Your task to perform on an android device: Clear the cart on costco.com. Search for lg ultragear on costco.com, select the first entry, add it to the cart, then select checkout. Image 0: 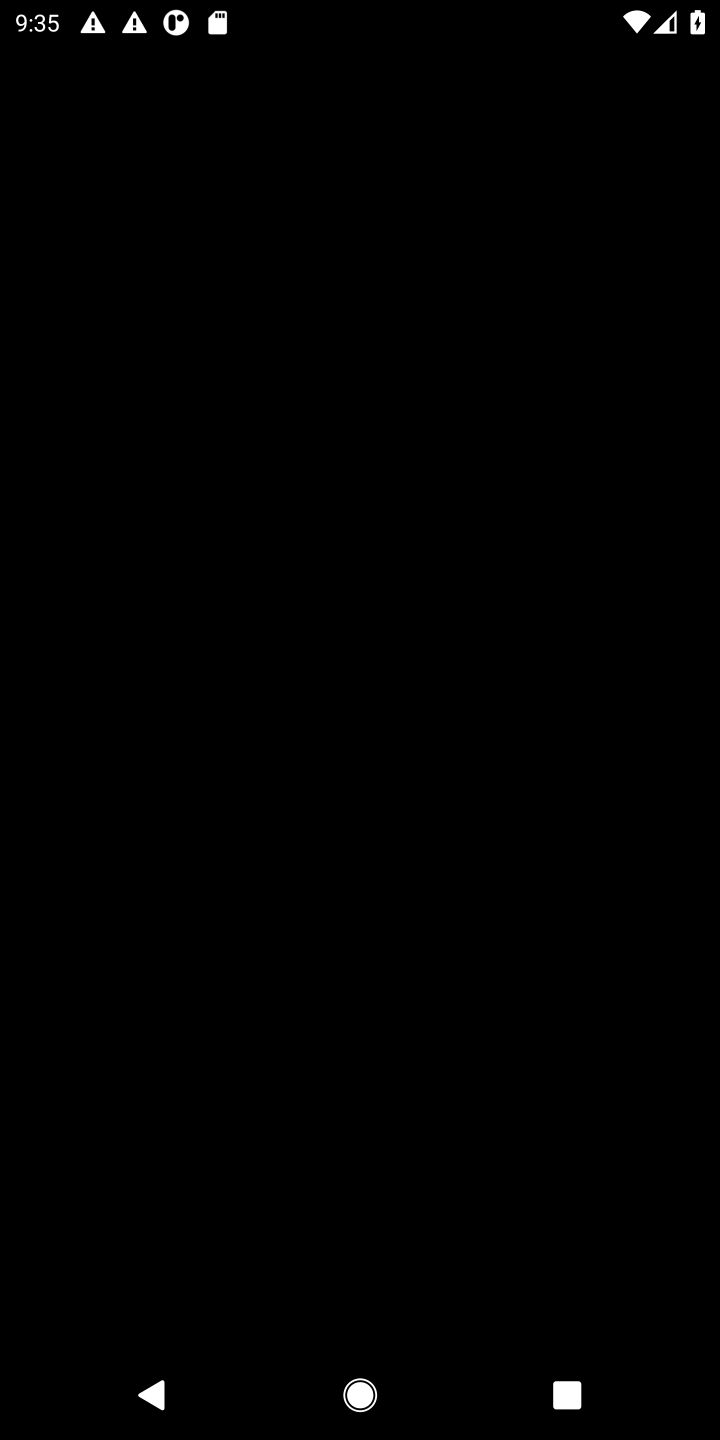
Step 0: press home button
Your task to perform on an android device: Clear the cart on costco.com. Search for lg ultragear on costco.com, select the first entry, add it to the cart, then select checkout. Image 1: 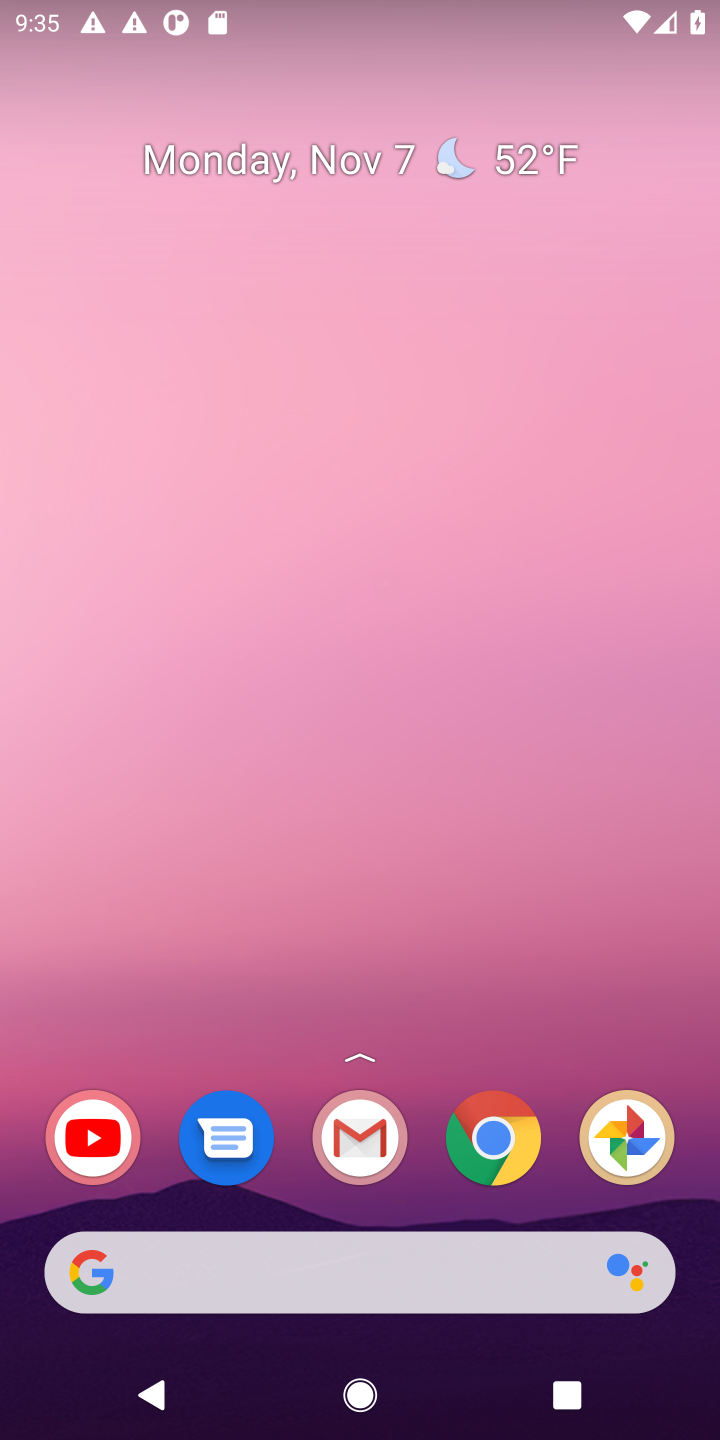
Step 1: click (512, 1120)
Your task to perform on an android device: Clear the cart on costco.com. Search for lg ultragear on costco.com, select the first entry, add it to the cart, then select checkout. Image 2: 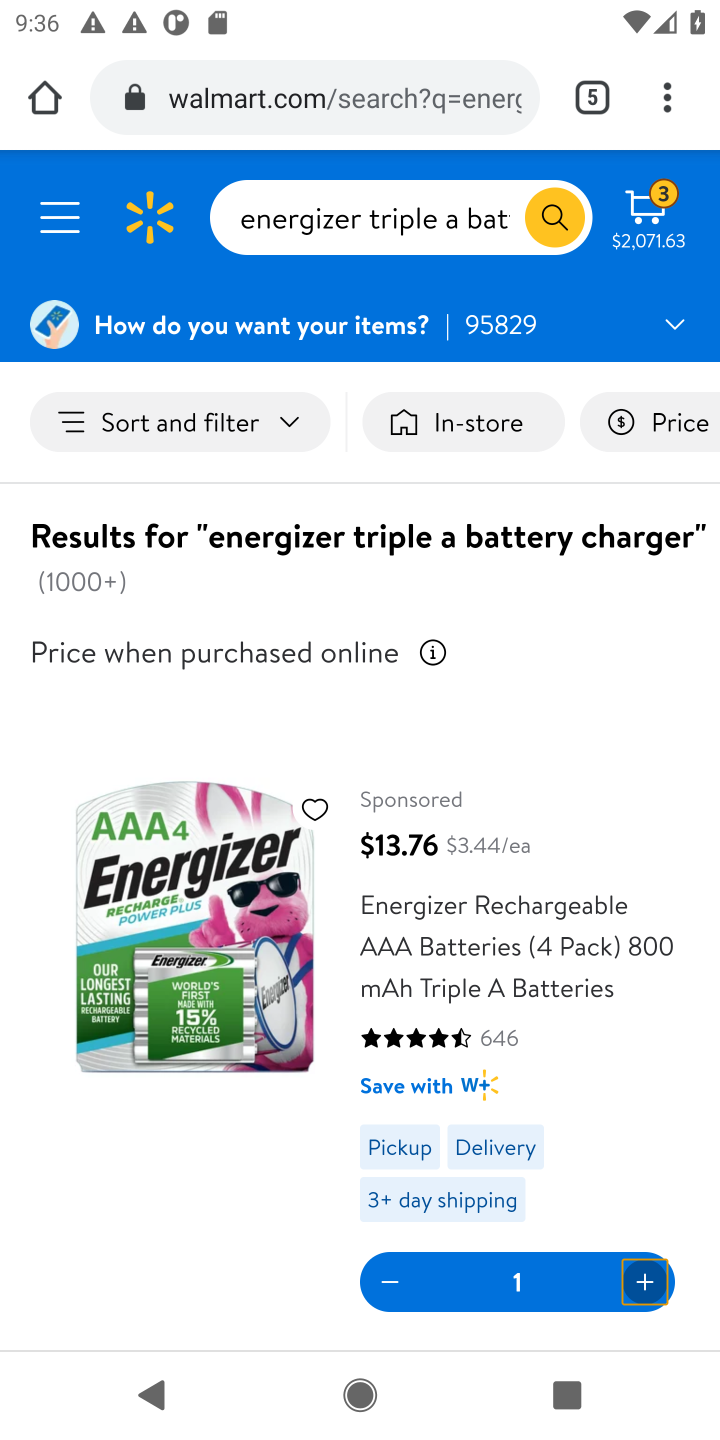
Step 2: click (595, 99)
Your task to perform on an android device: Clear the cart on costco.com. Search for lg ultragear on costco.com, select the first entry, add it to the cart, then select checkout. Image 3: 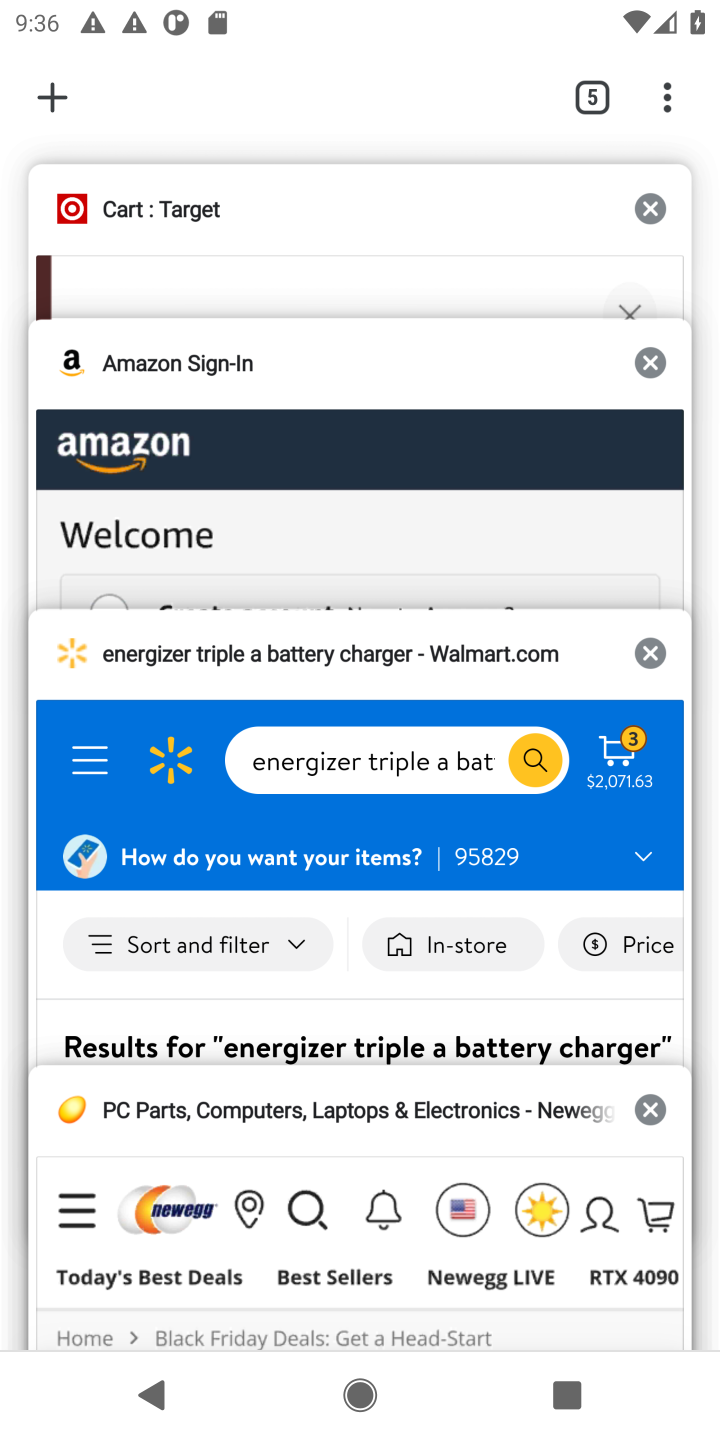
Step 3: click (52, 106)
Your task to perform on an android device: Clear the cart on costco.com. Search for lg ultragear on costco.com, select the first entry, add it to the cart, then select checkout. Image 4: 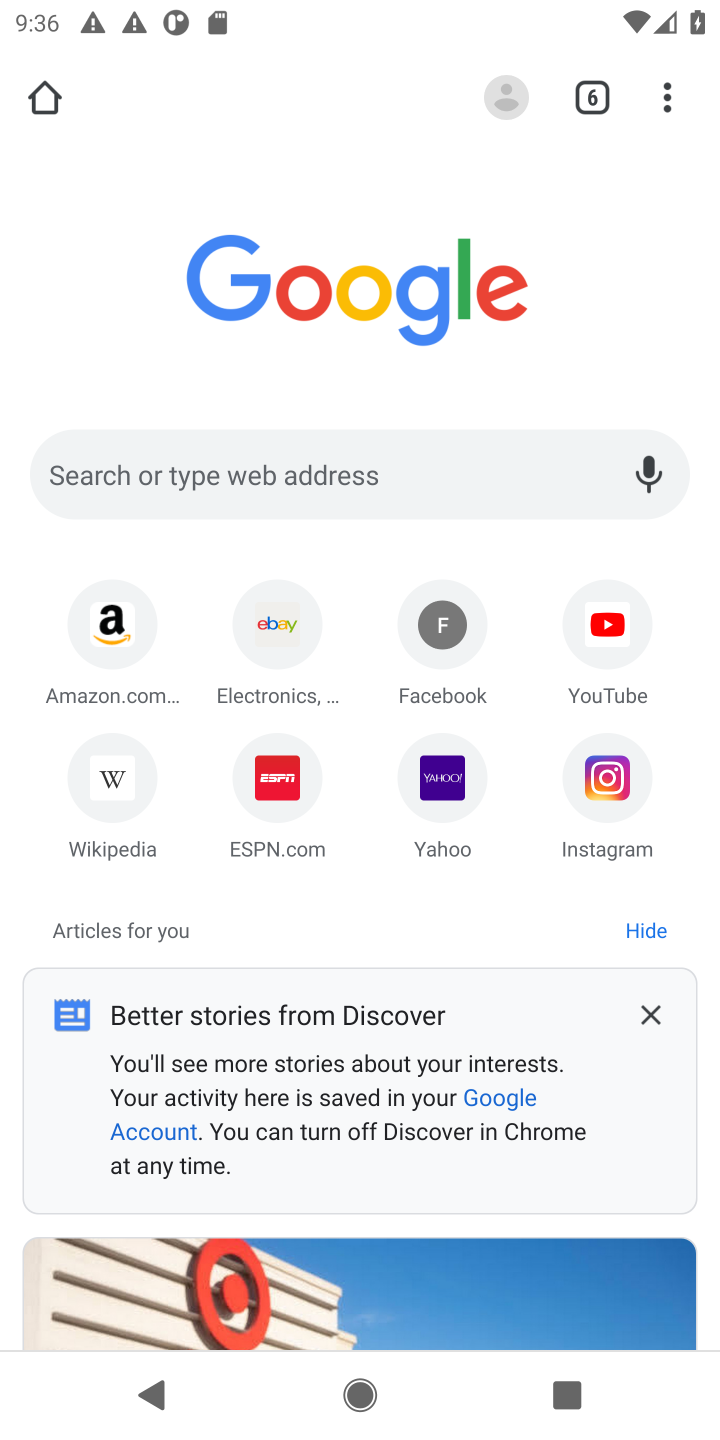
Step 4: click (210, 478)
Your task to perform on an android device: Clear the cart on costco.com. Search for lg ultragear on costco.com, select the first entry, add it to the cart, then select checkout. Image 5: 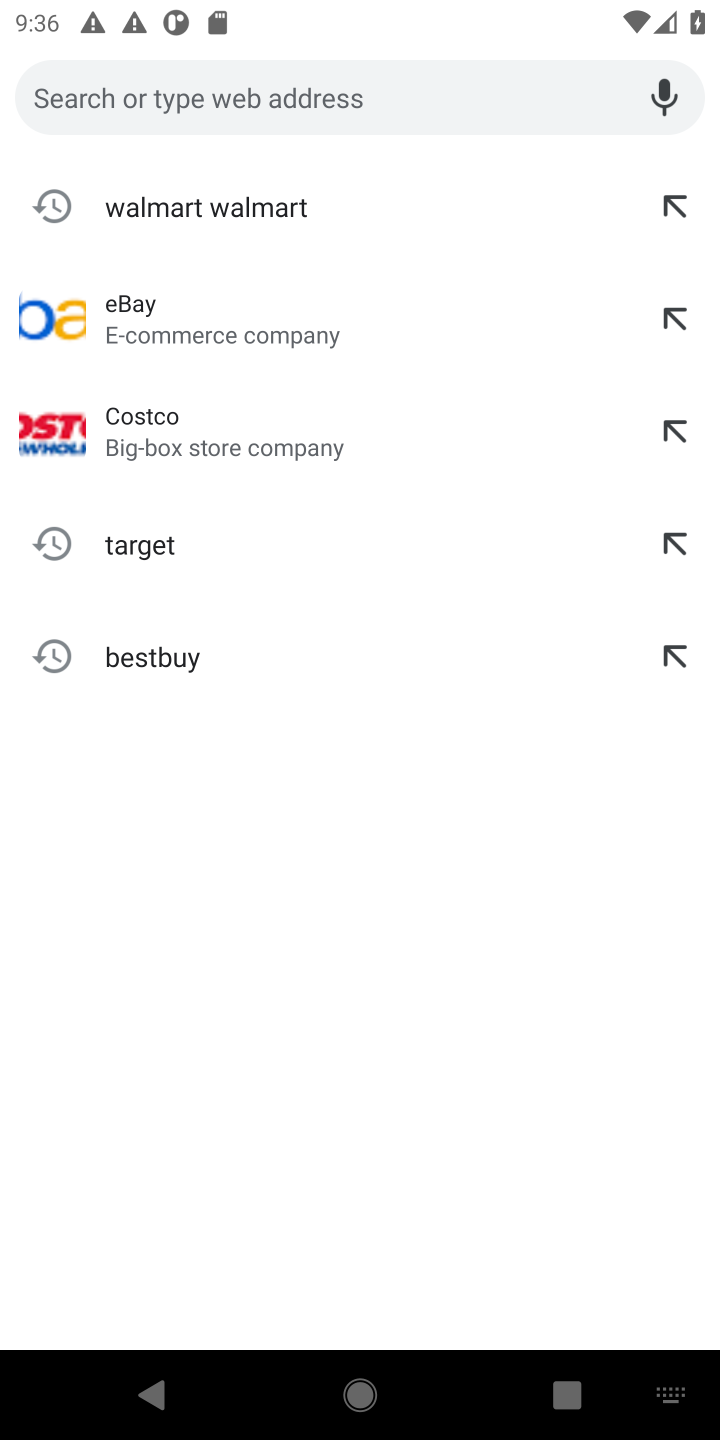
Step 5: click (204, 437)
Your task to perform on an android device: Clear the cart on costco.com. Search for lg ultragear on costco.com, select the first entry, add it to the cart, then select checkout. Image 6: 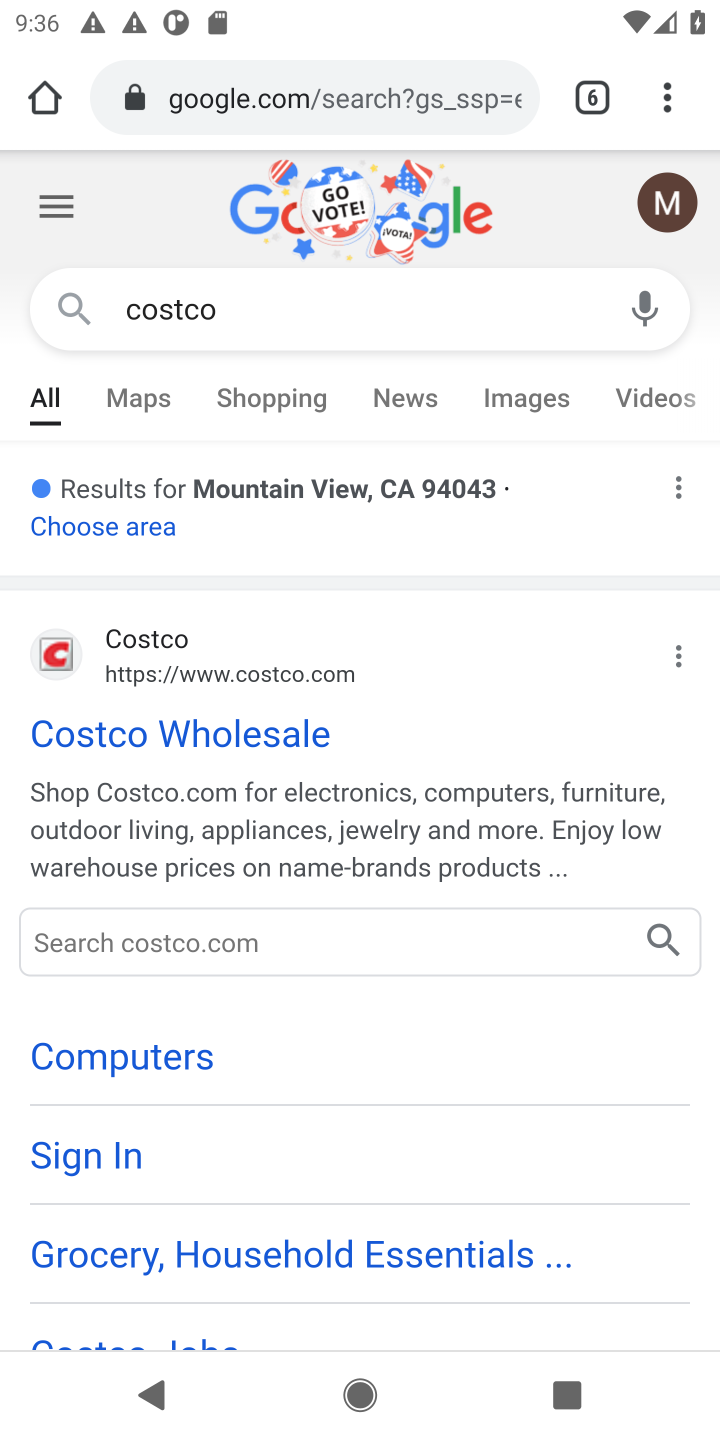
Step 6: click (148, 940)
Your task to perform on an android device: Clear the cart on costco.com. Search for lg ultragear on costco.com, select the first entry, add it to the cart, then select checkout. Image 7: 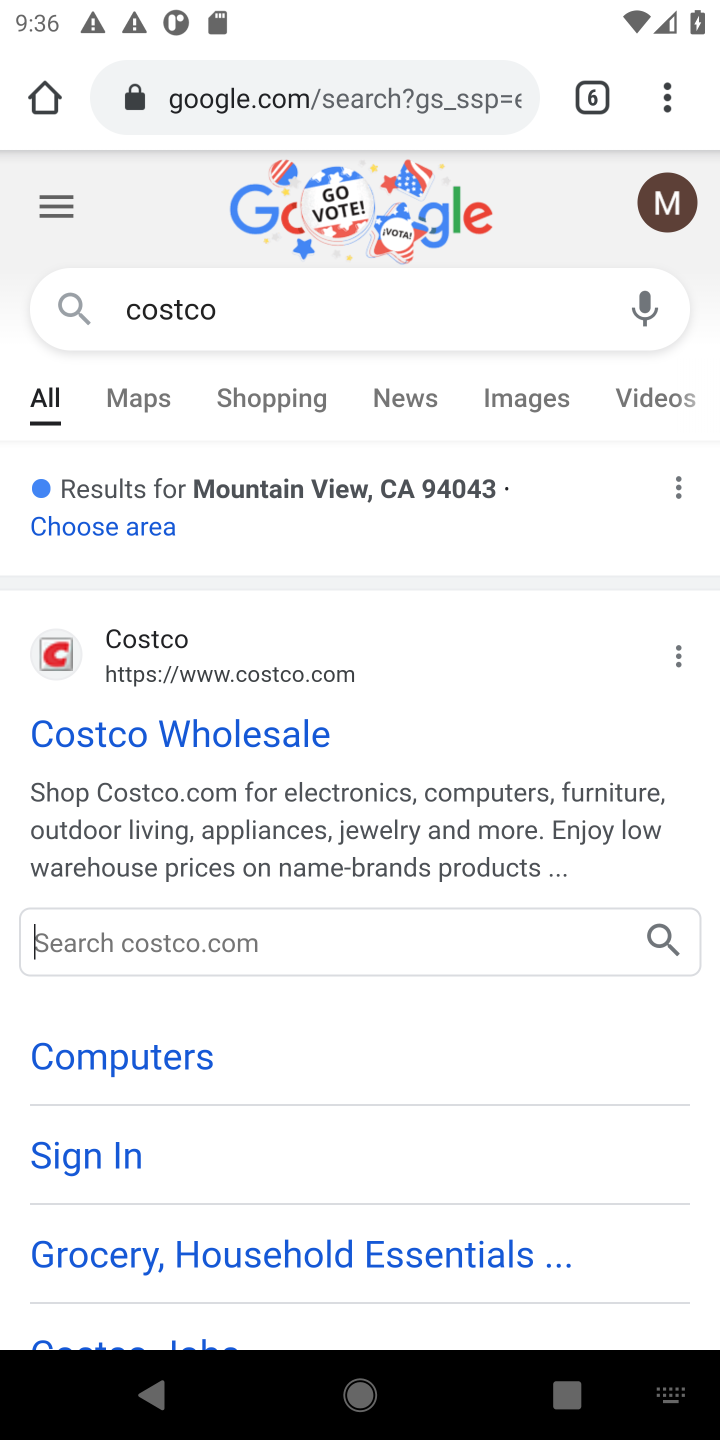
Step 7: type "lg ultragear"
Your task to perform on an android device: Clear the cart on costco.com. Search for lg ultragear on costco.com, select the first entry, add it to the cart, then select checkout. Image 8: 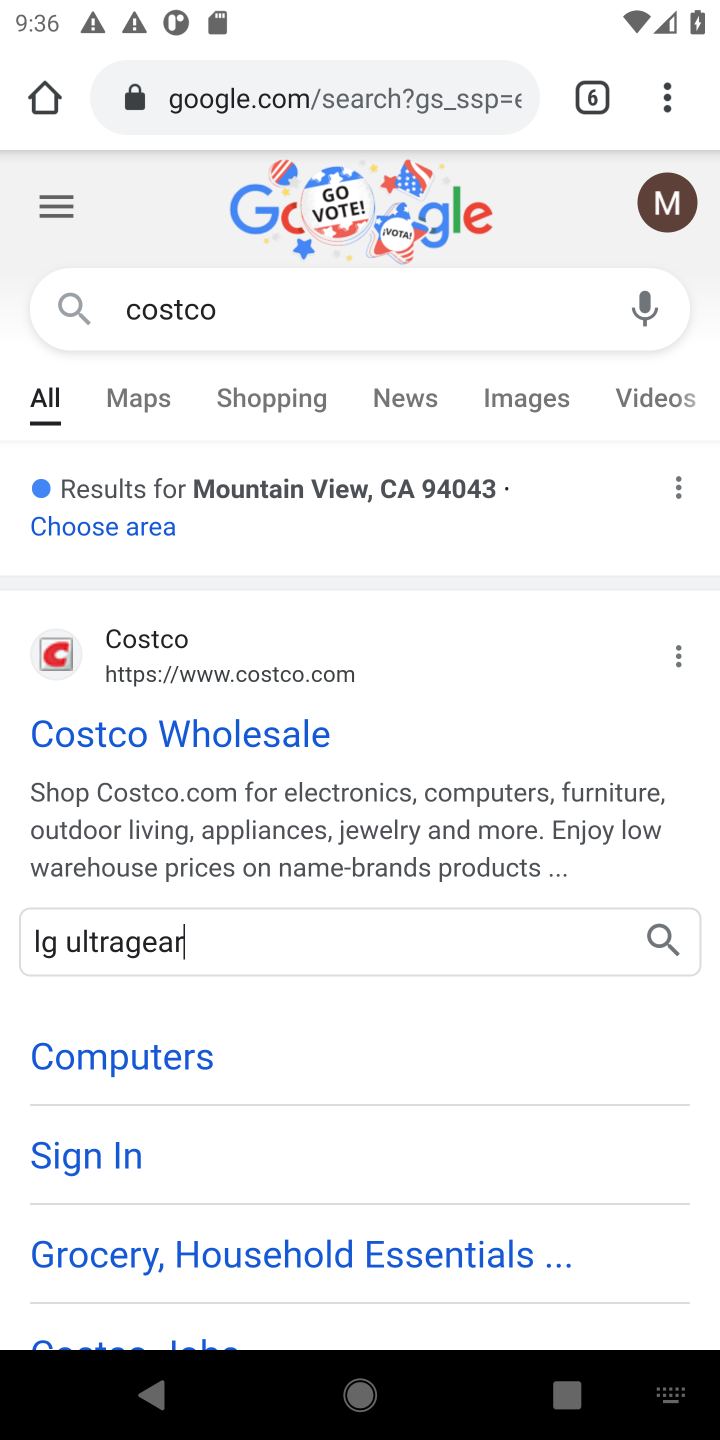
Step 8: click (665, 942)
Your task to perform on an android device: Clear the cart on costco.com. Search for lg ultragear on costco.com, select the first entry, add it to the cart, then select checkout. Image 9: 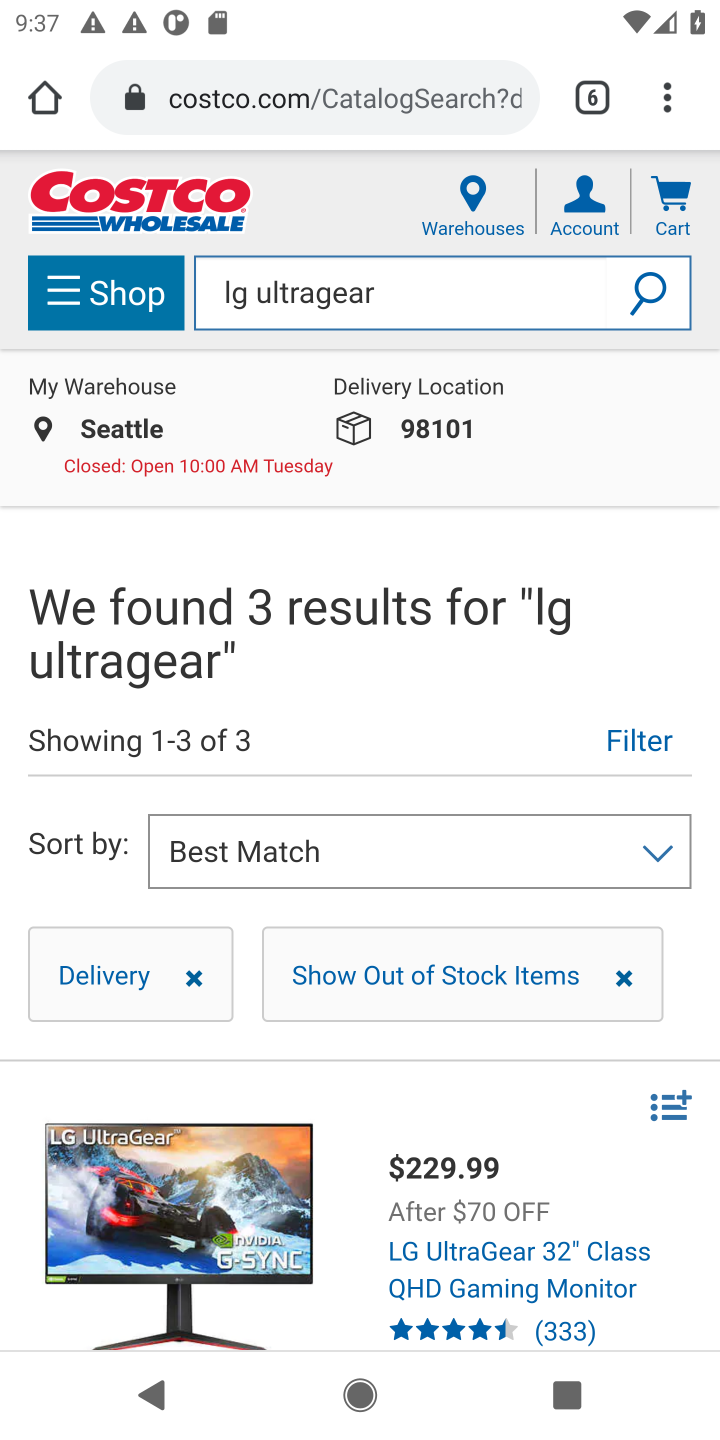
Step 9: drag from (583, 1208) to (611, 170)
Your task to perform on an android device: Clear the cart on costco.com. Search for lg ultragear on costco.com, select the first entry, add it to the cart, then select checkout. Image 10: 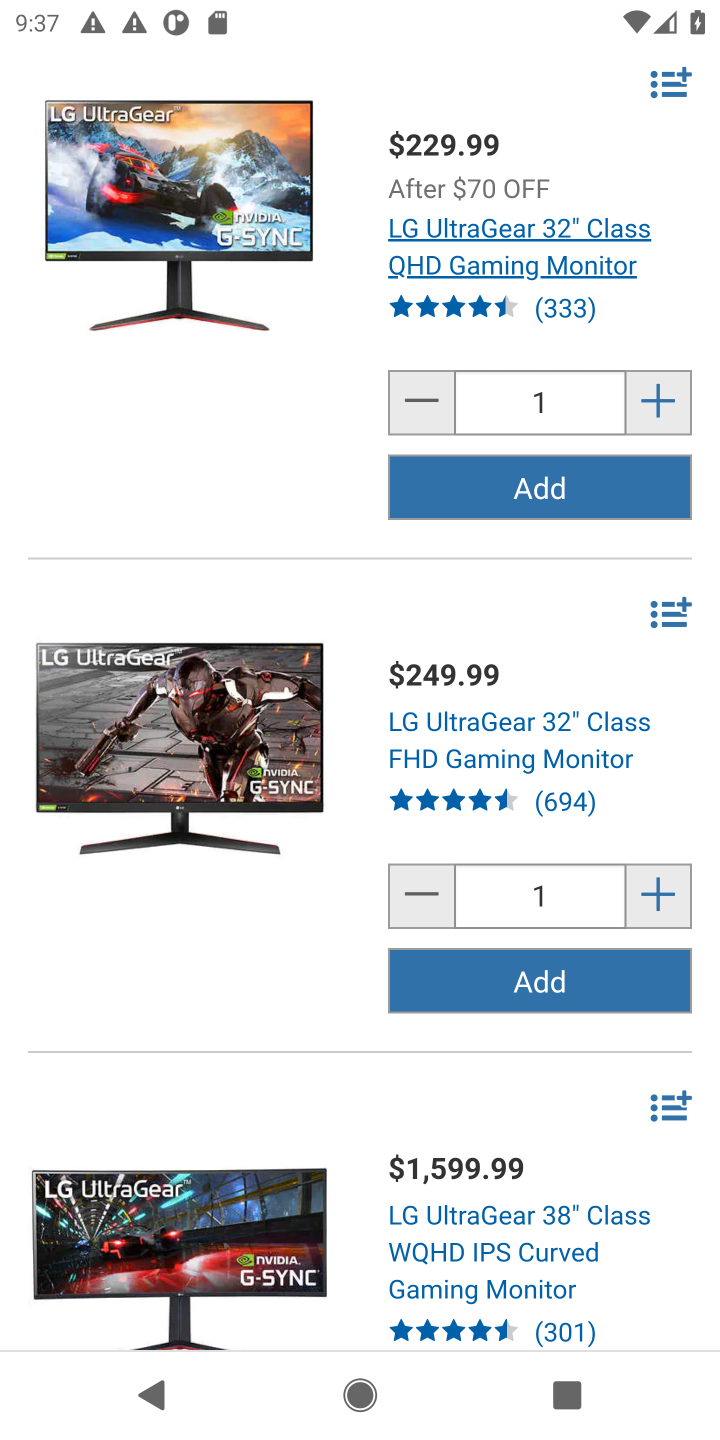
Step 10: click (515, 504)
Your task to perform on an android device: Clear the cart on costco.com. Search for lg ultragear on costco.com, select the first entry, add it to the cart, then select checkout. Image 11: 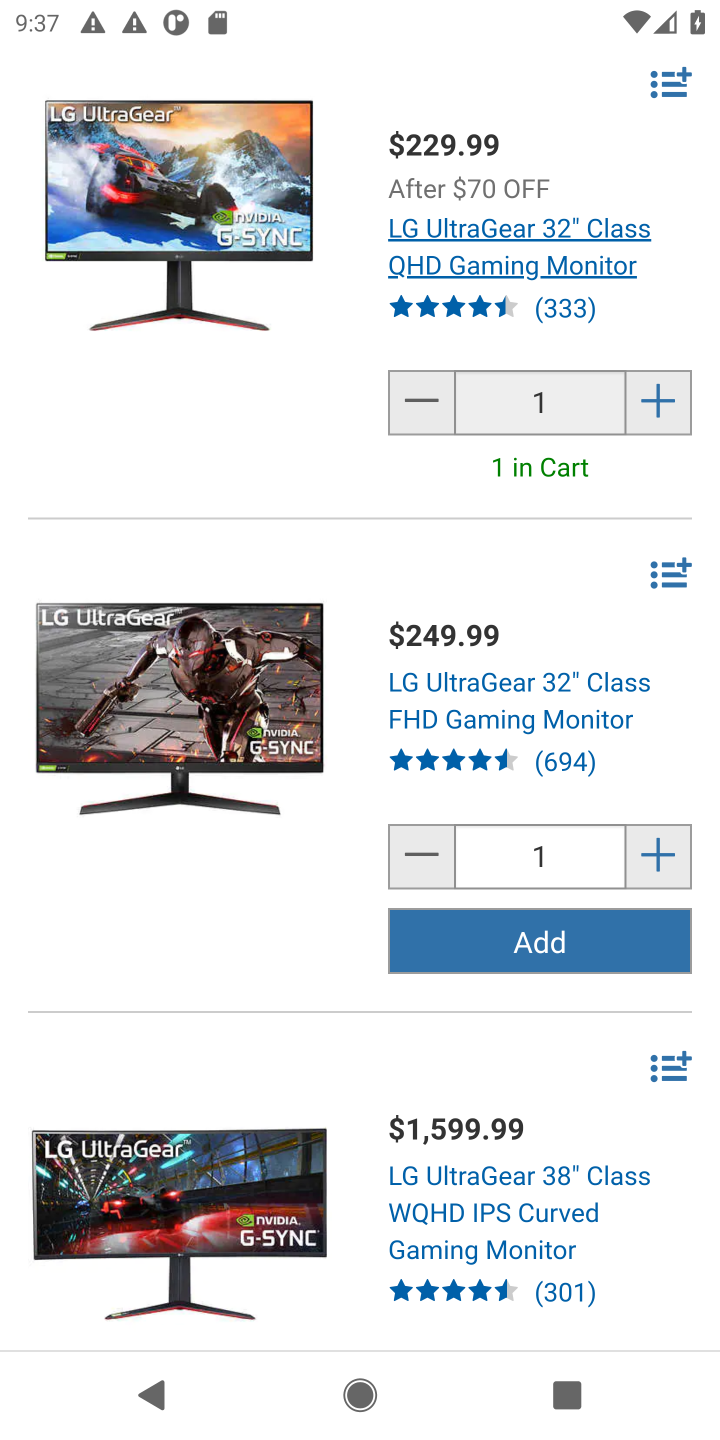
Step 11: task complete